Your task to perform on an android device: Open display settings Image 0: 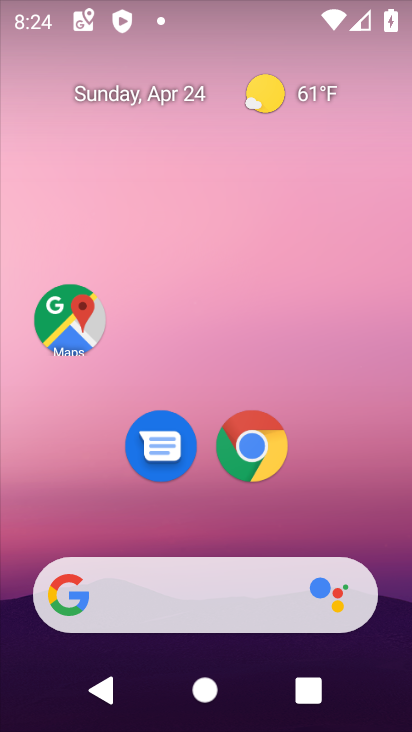
Step 0: drag from (225, 615) to (226, 132)
Your task to perform on an android device: Open display settings Image 1: 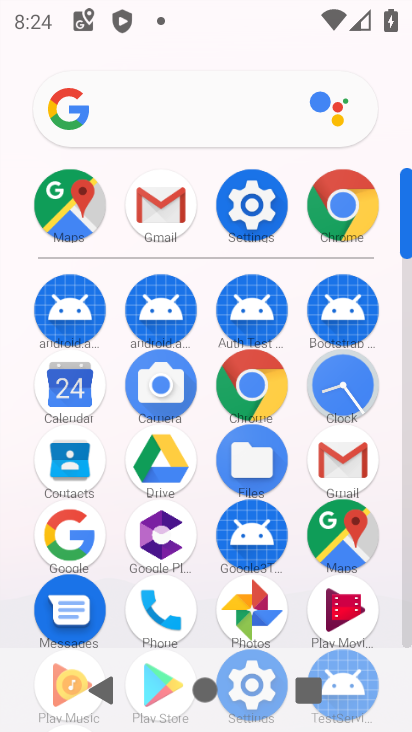
Step 1: click (252, 221)
Your task to perform on an android device: Open display settings Image 2: 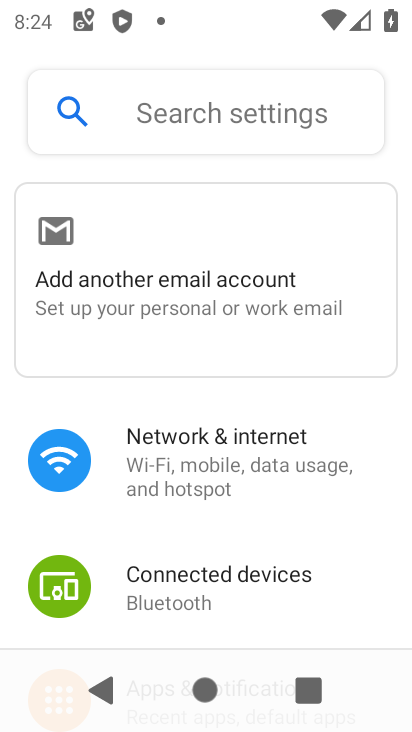
Step 2: drag from (290, 402) to (321, 168)
Your task to perform on an android device: Open display settings Image 3: 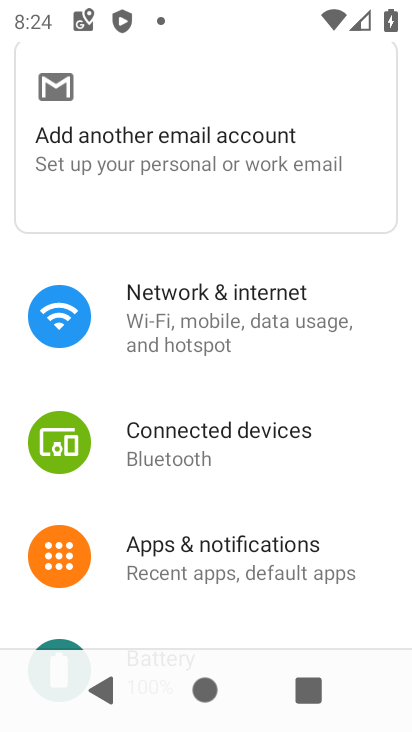
Step 3: drag from (247, 484) to (255, 281)
Your task to perform on an android device: Open display settings Image 4: 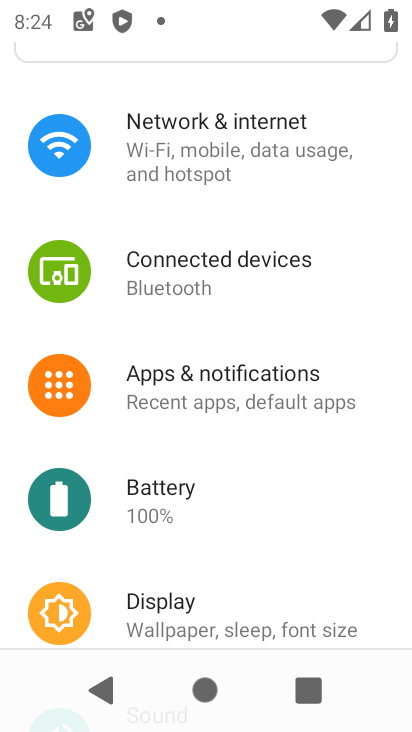
Step 4: click (219, 615)
Your task to perform on an android device: Open display settings Image 5: 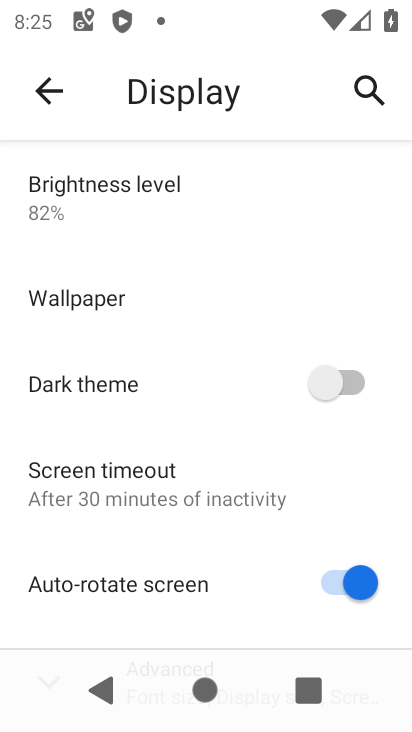
Step 5: task complete